Your task to perform on an android device: open app "WhatsApp Messenger" (install if not already installed), go to login, and select forgot password Image 0: 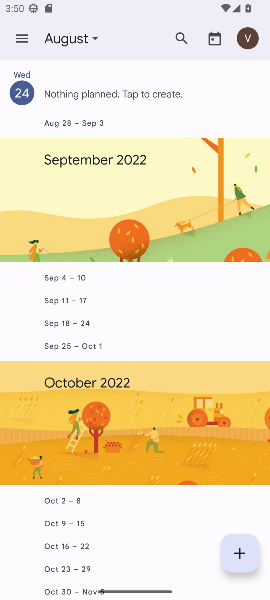
Step 0: press home button
Your task to perform on an android device: open app "WhatsApp Messenger" (install if not already installed), go to login, and select forgot password Image 1: 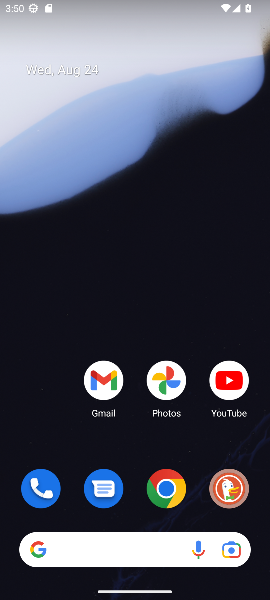
Step 1: drag from (131, 517) to (135, 96)
Your task to perform on an android device: open app "WhatsApp Messenger" (install if not already installed), go to login, and select forgot password Image 2: 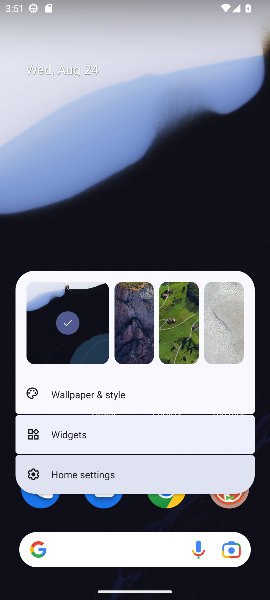
Step 2: click (135, 96)
Your task to perform on an android device: open app "WhatsApp Messenger" (install if not already installed), go to login, and select forgot password Image 3: 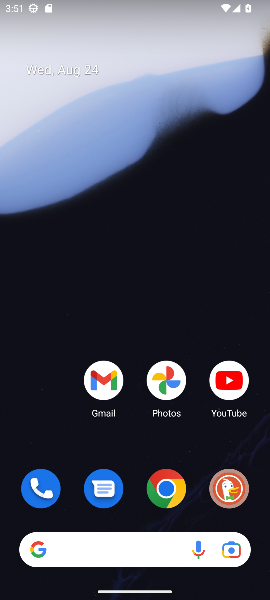
Step 3: drag from (138, 519) to (130, 132)
Your task to perform on an android device: open app "WhatsApp Messenger" (install if not already installed), go to login, and select forgot password Image 4: 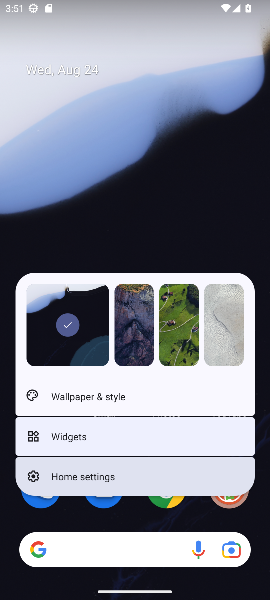
Step 4: click (130, 132)
Your task to perform on an android device: open app "WhatsApp Messenger" (install if not already installed), go to login, and select forgot password Image 5: 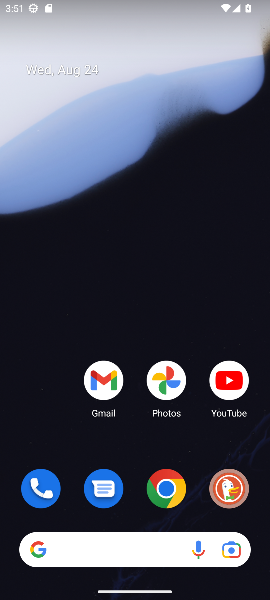
Step 5: drag from (131, 513) to (121, 163)
Your task to perform on an android device: open app "WhatsApp Messenger" (install if not already installed), go to login, and select forgot password Image 6: 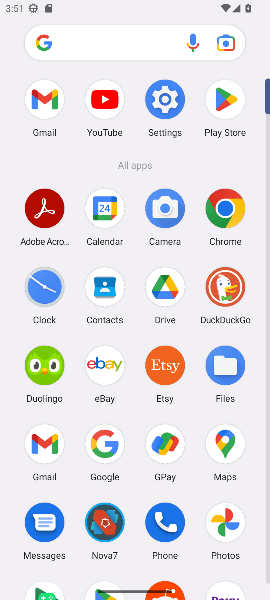
Step 6: click (226, 103)
Your task to perform on an android device: open app "WhatsApp Messenger" (install if not already installed), go to login, and select forgot password Image 7: 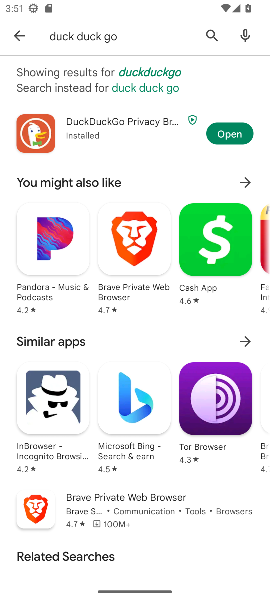
Step 7: click (203, 31)
Your task to perform on an android device: open app "WhatsApp Messenger" (install if not already installed), go to login, and select forgot password Image 8: 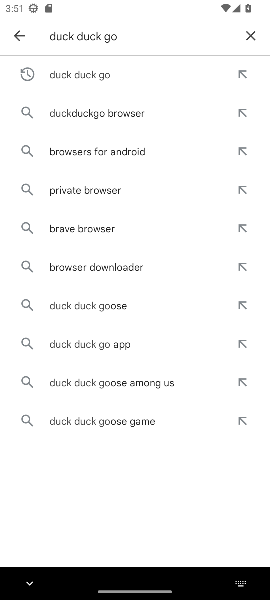
Step 8: click (251, 33)
Your task to perform on an android device: open app "WhatsApp Messenger" (install if not already installed), go to login, and select forgot password Image 9: 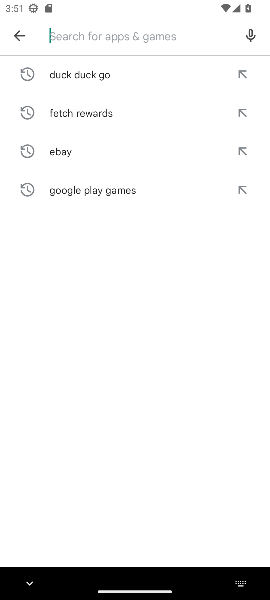
Step 9: type "whatsapp"
Your task to perform on an android device: open app "WhatsApp Messenger" (install if not already installed), go to login, and select forgot password Image 10: 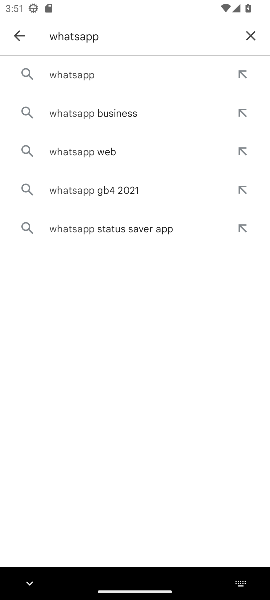
Step 10: click (116, 80)
Your task to perform on an android device: open app "WhatsApp Messenger" (install if not already installed), go to login, and select forgot password Image 11: 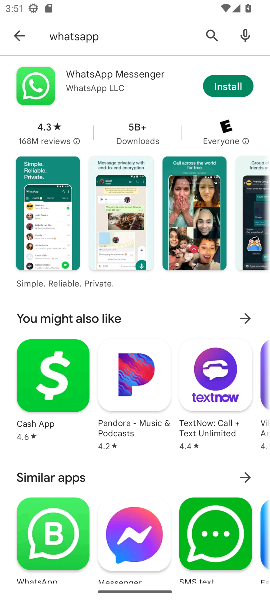
Step 11: click (205, 79)
Your task to perform on an android device: open app "WhatsApp Messenger" (install if not already installed), go to login, and select forgot password Image 12: 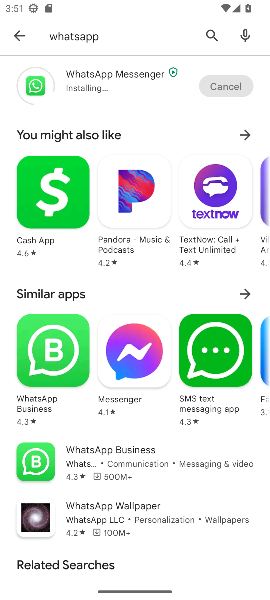
Step 12: task complete